Your task to perform on an android device: change text size in settings app Image 0: 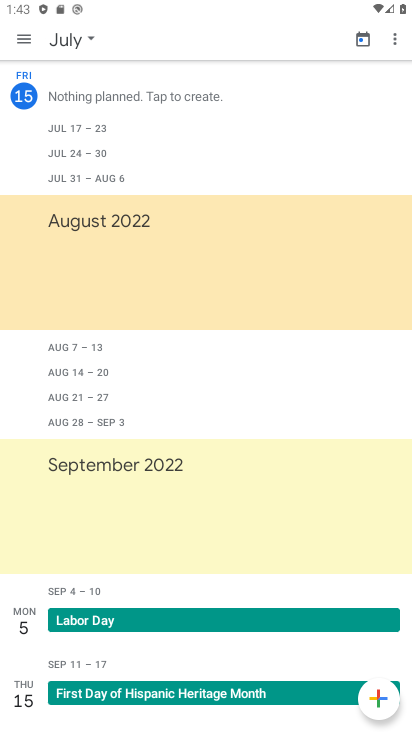
Step 0: press home button
Your task to perform on an android device: change text size in settings app Image 1: 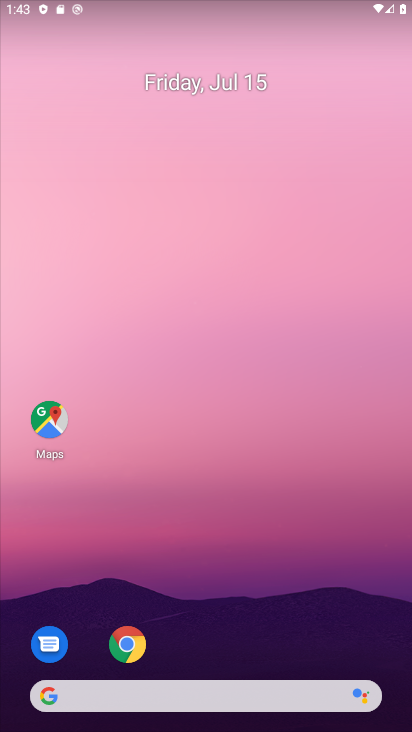
Step 1: click (410, 178)
Your task to perform on an android device: change text size in settings app Image 2: 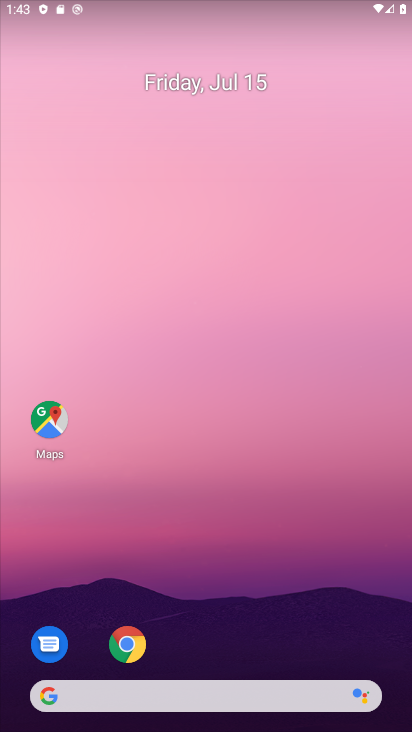
Step 2: drag from (25, 701) to (254, 103)
Your task to perform on an android device: change text size in settings app Image 3: 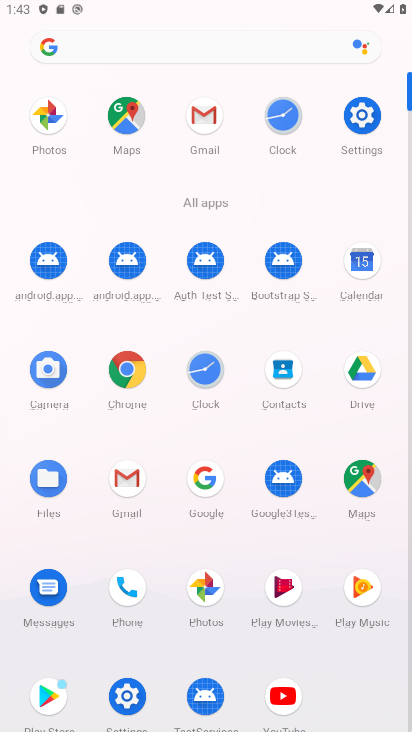
Step 3: click (128, 700)
Your task to perform on an android device: change text size in settings app Image 4: 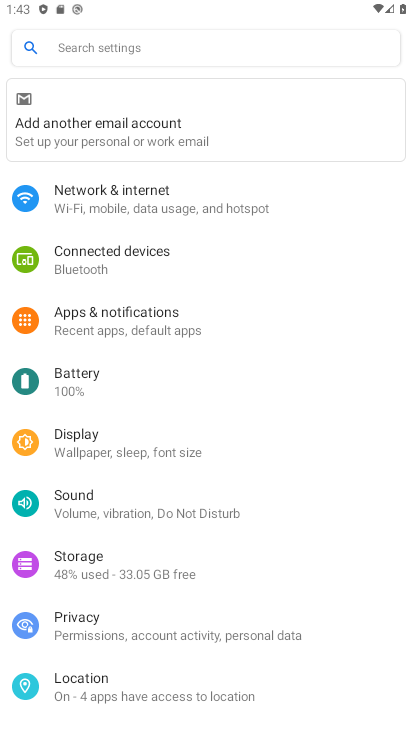
Step 4: click (165, 441)
Your task to perform on an android device: change text size in settings app Image 5: 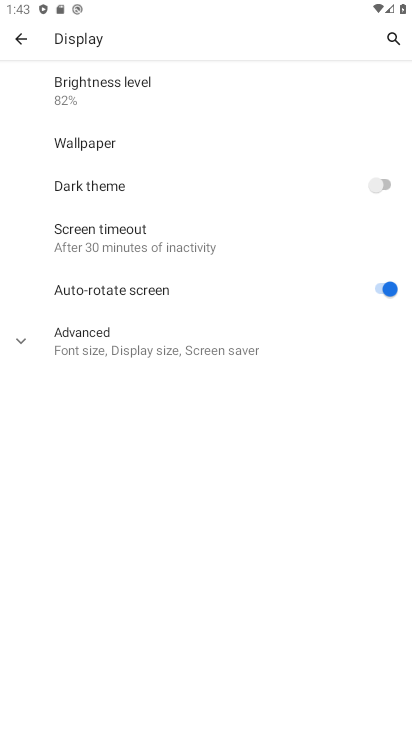
Step 5: click (132, 335)
Your task to perform on an android device: change text size in settings app Image 6: 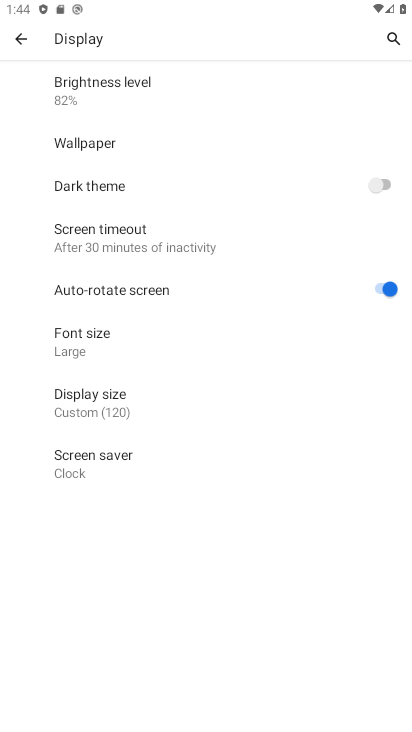
Step 6: click (93, 345)
Your task to perform on an android device: change text size in settings app Image 7: 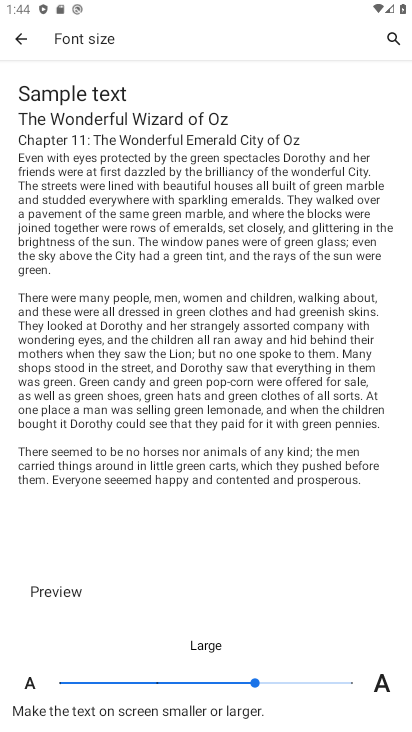
Step 7: click (244, 681)
Your task to perform on an android device: change text size in settings app Image 8: 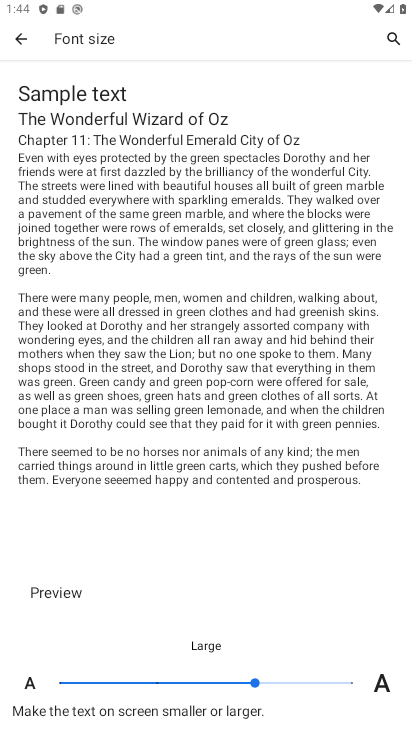
Step 8: task complete